Your task to perform on an android device: turn on sleep mode Image 0: 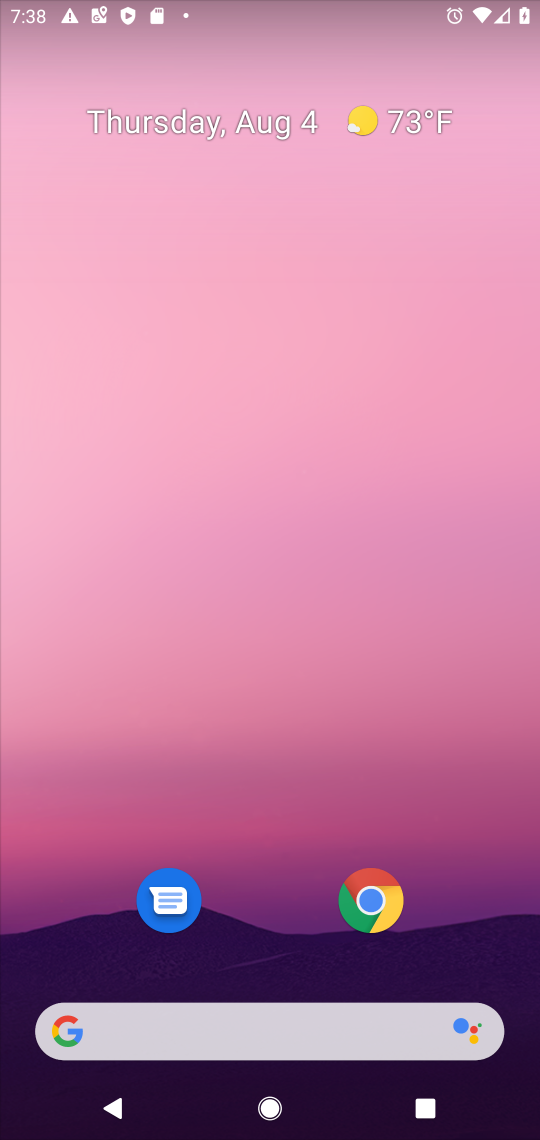
Step 0: drag from (325, 1026) to (295, 165)
Your task to perform on an android device: turn on sleep mode Image 1: 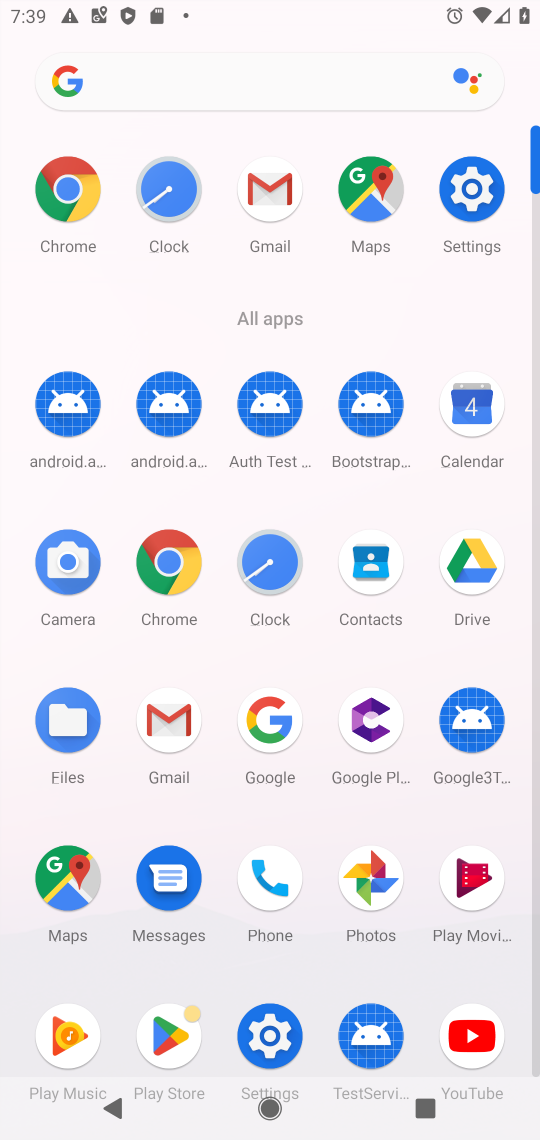
Step 1: click (479, 191)
Your task to perform on an android device: turn on sleep mode Image 2: 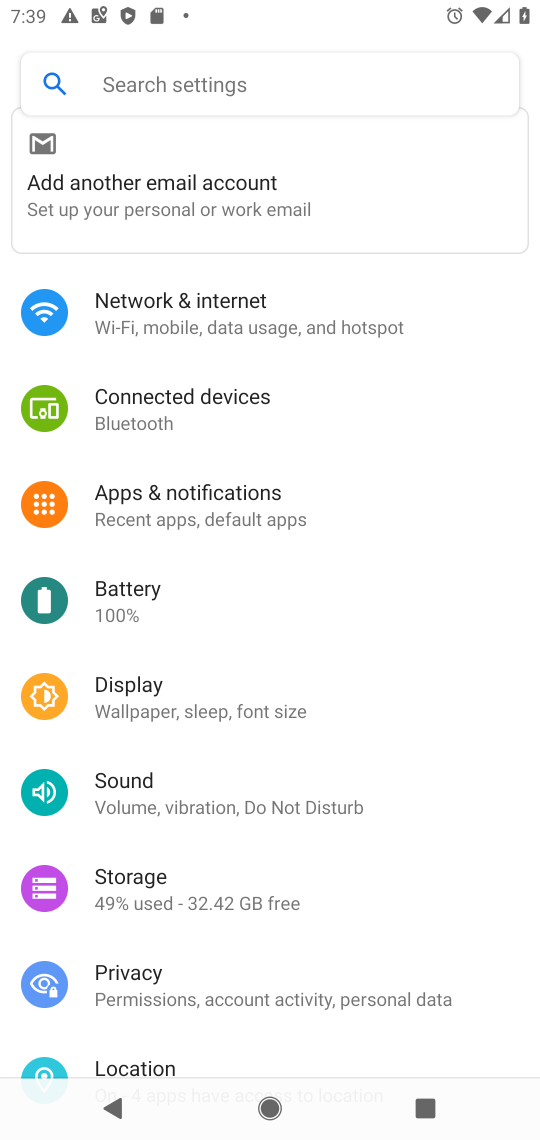
Step 2: click (135, 688)
Your task to perform on an android device: turn on sleep mode Image 3: 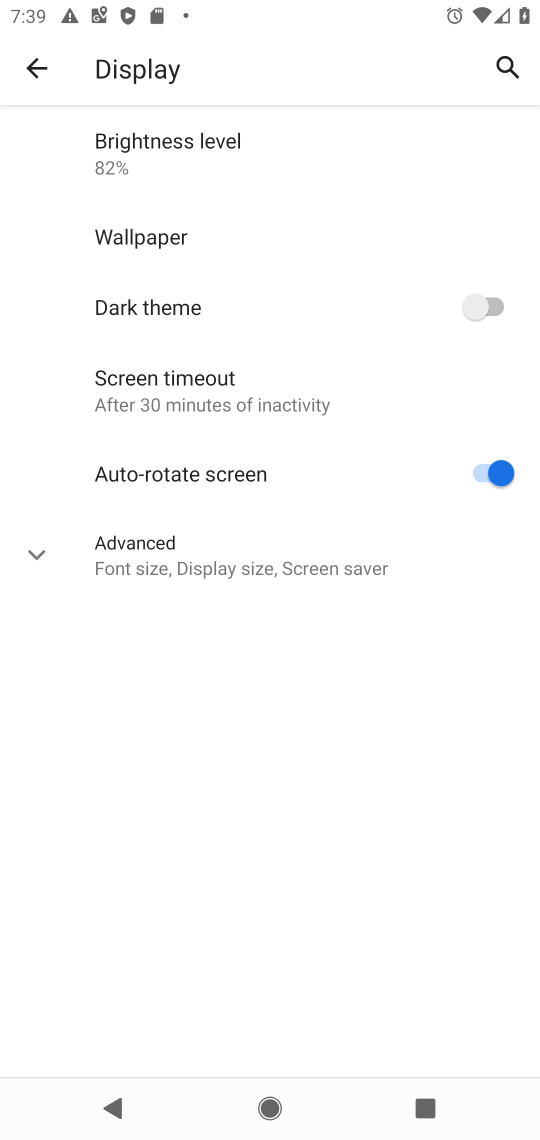
Step 3: click (144, 555)
Your task to perform on an android device: turn on sleep mode Image 4: 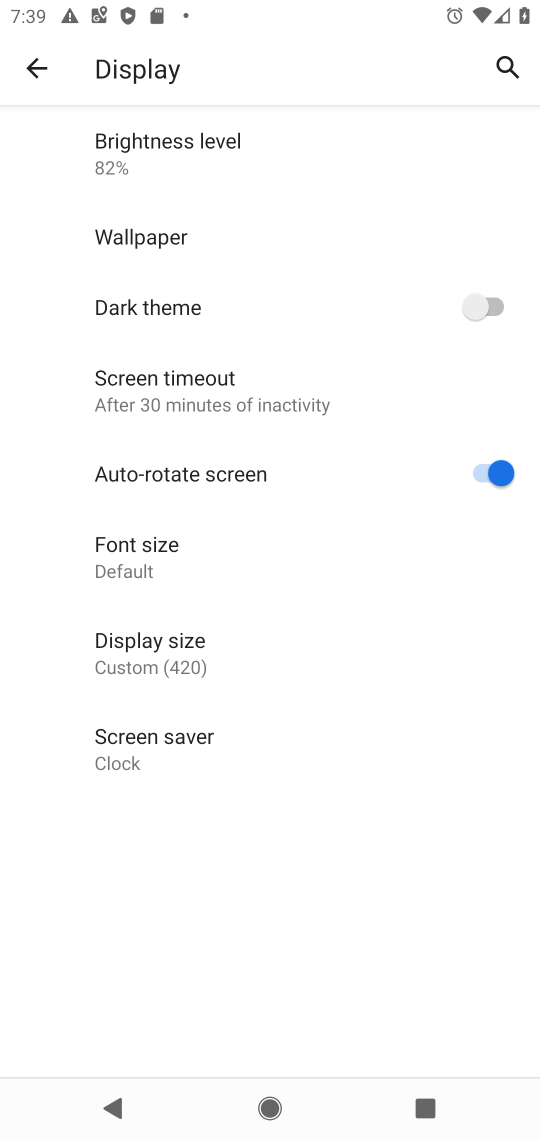
Step 4: click (176, 399)
Your task to perform on an android device: turn on sleep mode Image 5: 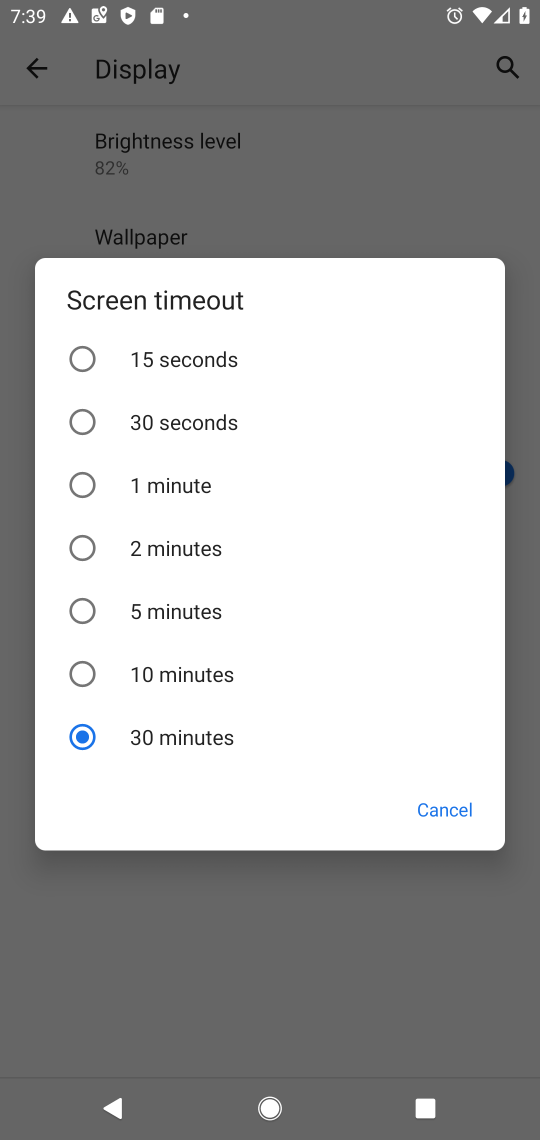
Step 5: click (457, 819)
Your task to perform on an android device: turn on sleep mode Image 6: 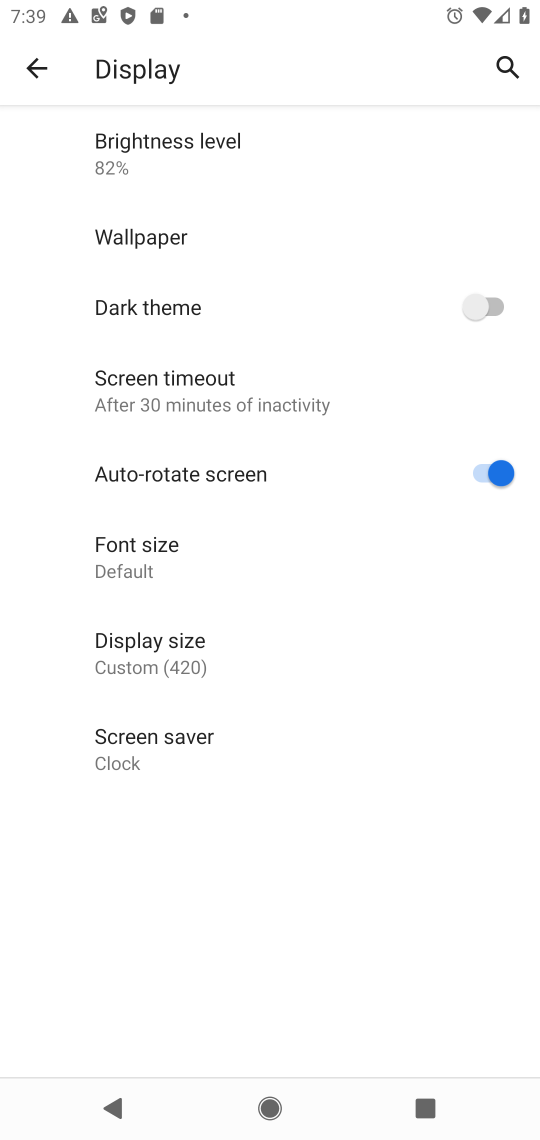
Step 6: task complete